Your task to perform on an android device: change the clock style Image 0: 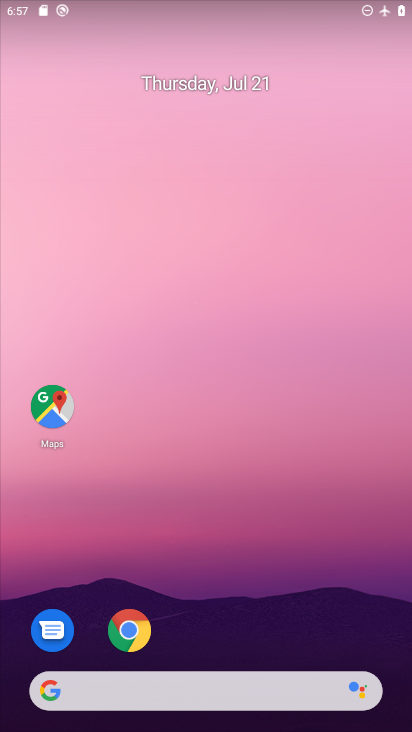
Step 0: drag from (190, 682) to (197, 184)
Your task to perform on an android device: change the clock style Image 1: 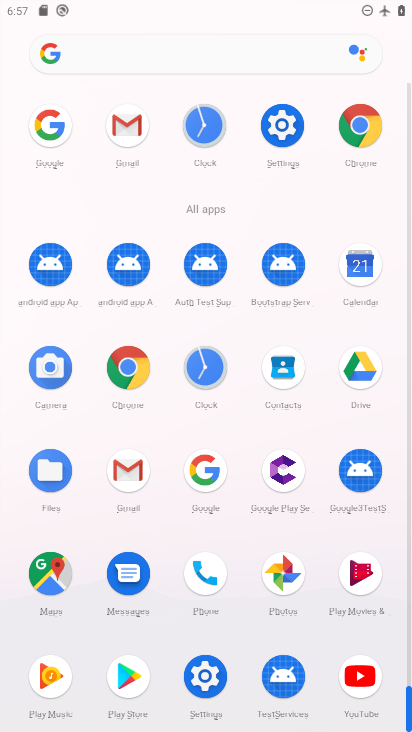
Step 1: click (206, 369)
Your task to perform on an android device: change the clock style Image 2: 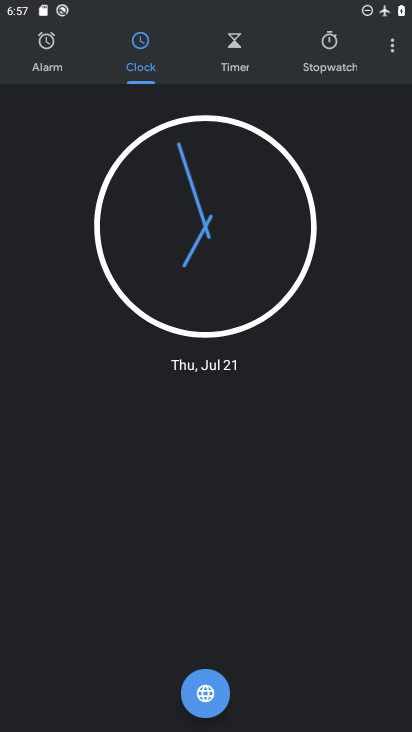
Step 2: click (393, 47)
Your task to perform on an android device: change the clock style Image 3: 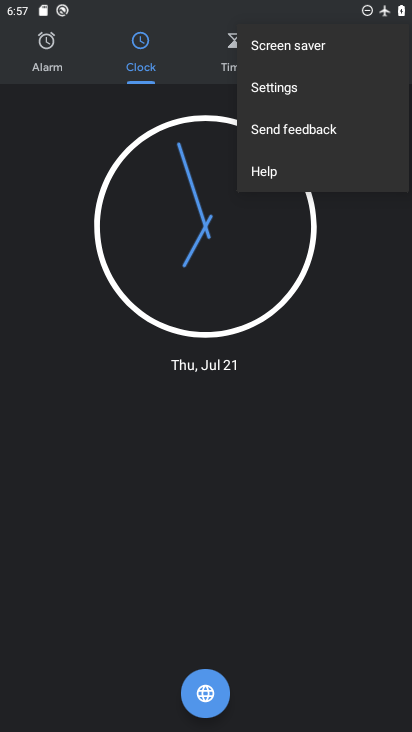
Step 3: click (298, 91)
Your task to perform on an android device: change the clock style Image 4: 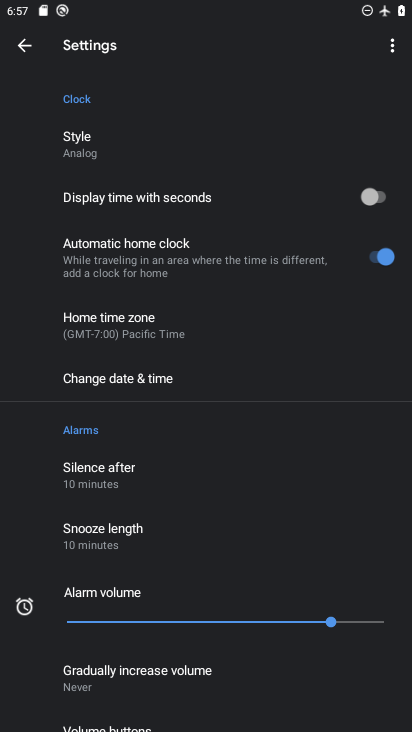
Step 4: click (91, 152)
Your task to perform on an android device: change the clock style Image 5: 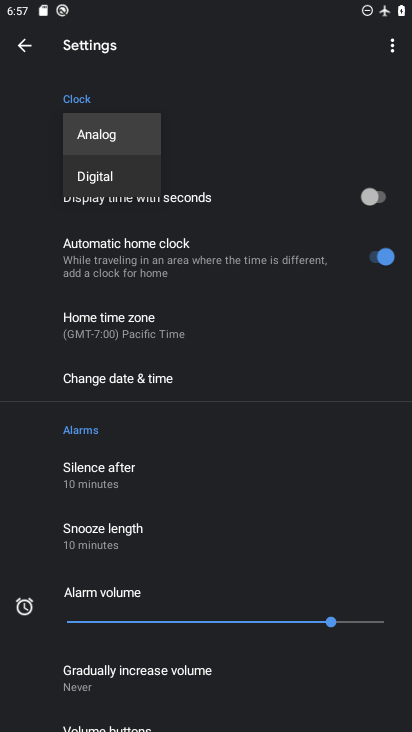
Step 5: click (94, 177)
Your task to perform on an android device: change the clock style Image 6: 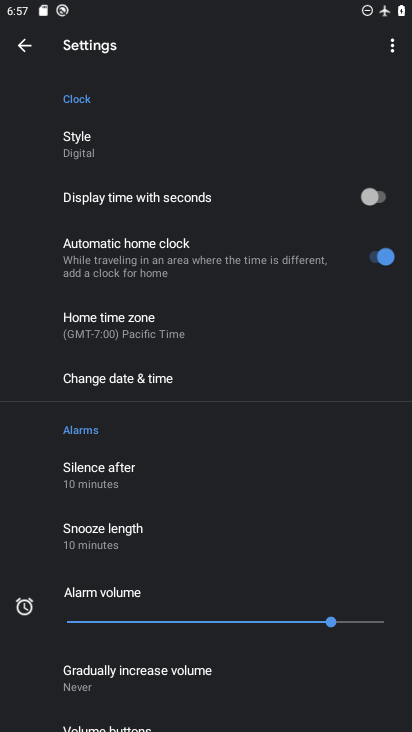
Step 6: task complete